Your task to perform on an android device: Open the web browser Image 0: 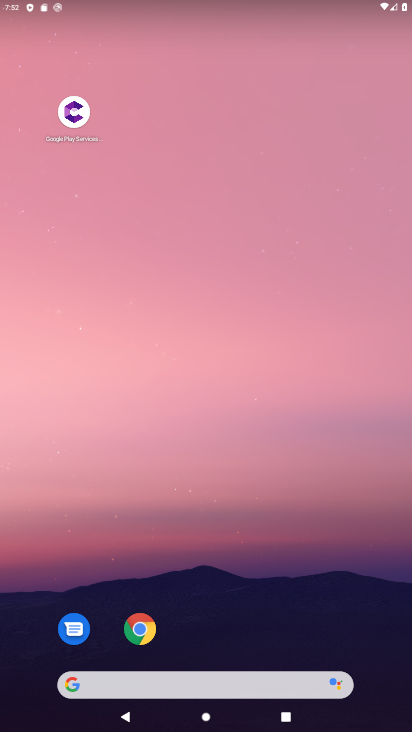
Step 0: drag from (199, 483) to (207, 217)
Your task to perform on an android device: Open the web browser Image 1: 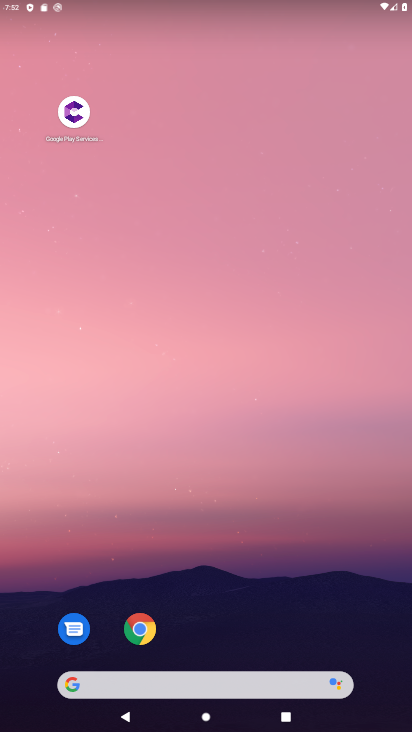
Step 1: drag from (196, 616) to (211, 209)
Your task to perform on an android device: Open the web browser Image 2: 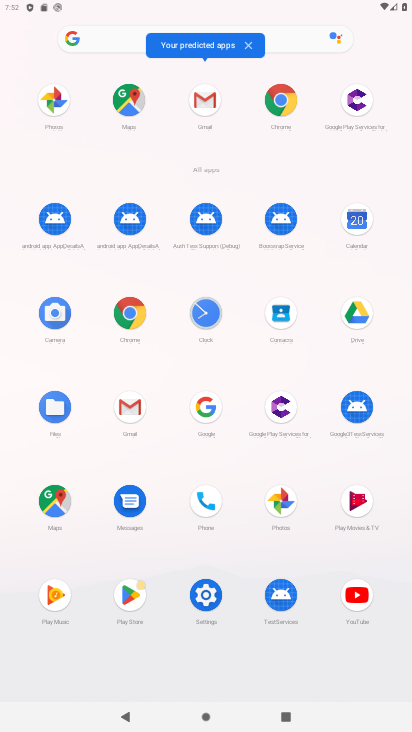
Step 2: click (200, 411)
Your task to perform on an android device: Open the web browser Image 3: 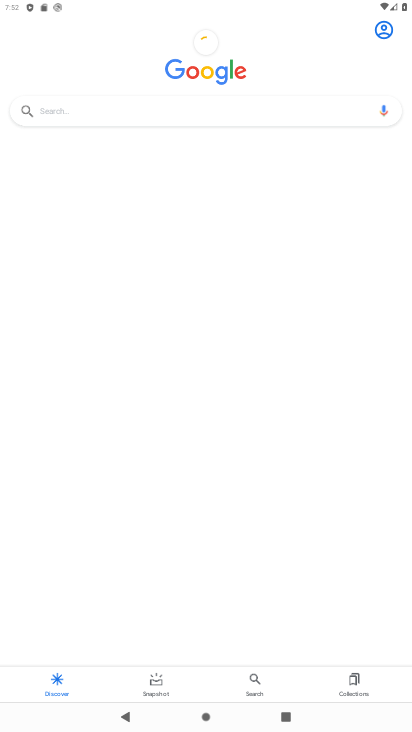
Step 3: task complete